Your task to perform on an android device: Open Youtube and go to "Your channel" Image 0: 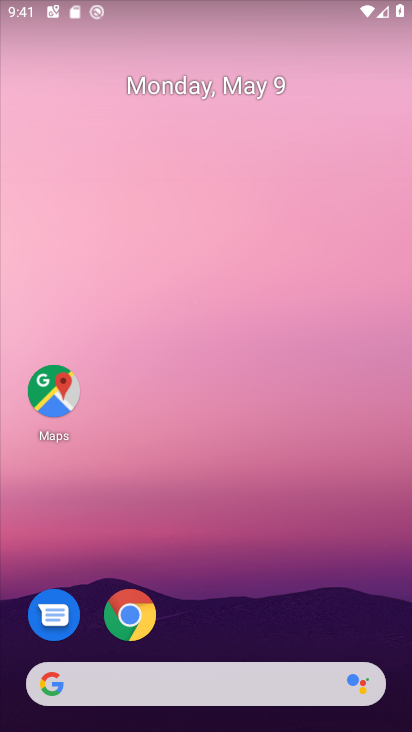
Step 0: drag from (271, 702) to (165, 256)
Your task to perform on an android device: Open Youtube and go to "Your channel" Image 1: 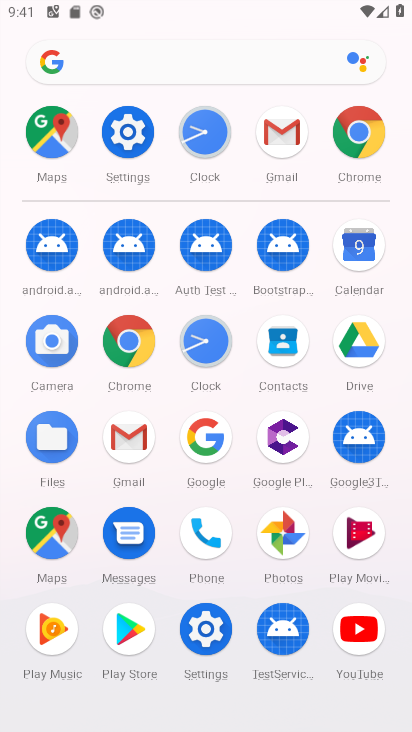
Step 1: click (364, 637)
Your task to perform on an android device: Open Youtube and go to "Your channel" Image 2: 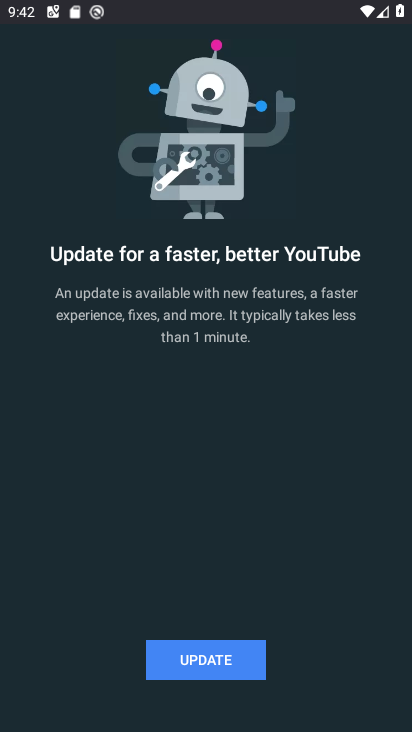
Step 2: press home button
Your task to perform on an android device: Open Youtube and go to "Your channel" Image 3: 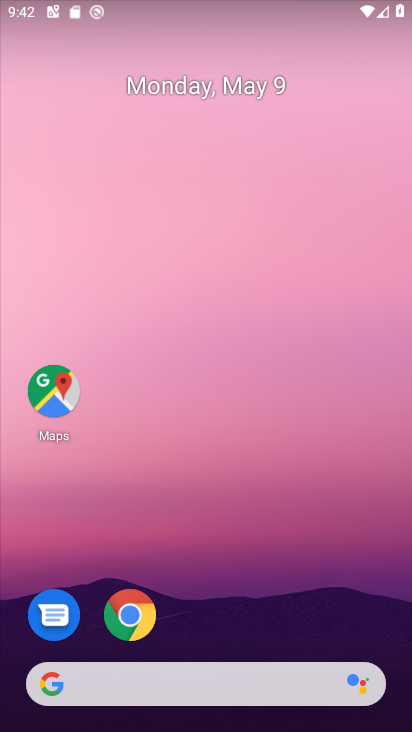
Step 3: drag from (261, 712) to (197, 238)
Your task to perform on an android device: Open Youtube and go to "Your channel" Image 4: 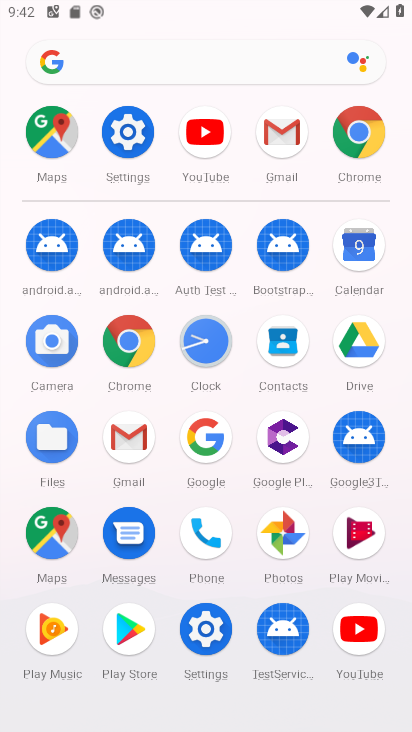
Step 4: click (365, 621)
Your task to perform on an android device: Open Youtube and go to "Your channel" Image 5: 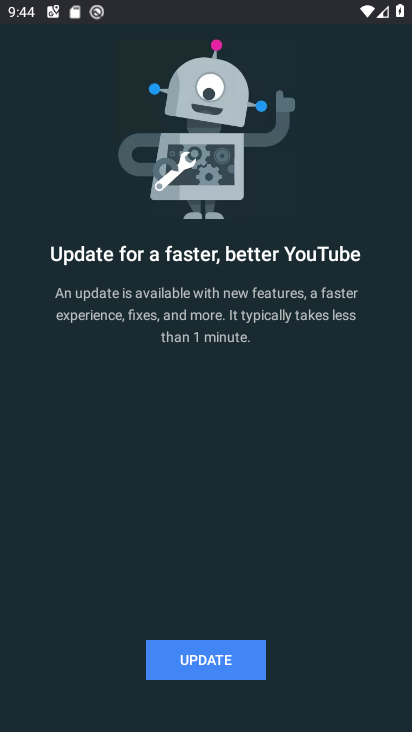
Step 5: click (182, 667)
Your task to perform on an android device: Open Youtube and go to "Your channel" Image 6: 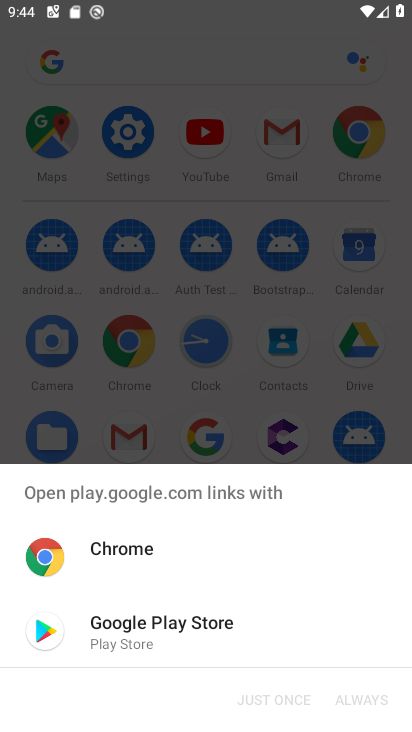
Step 6: click (173, 623)
Your task to perform on an android device: Open Youtube and go to "Your channel" Image 7: 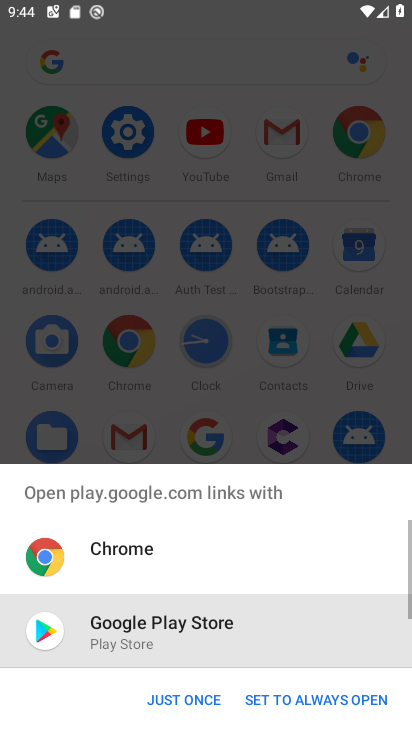
Step 7: click (192, 702)
Your task to perform on an android device: Open Youtube and go to "Your channel" Image 8: 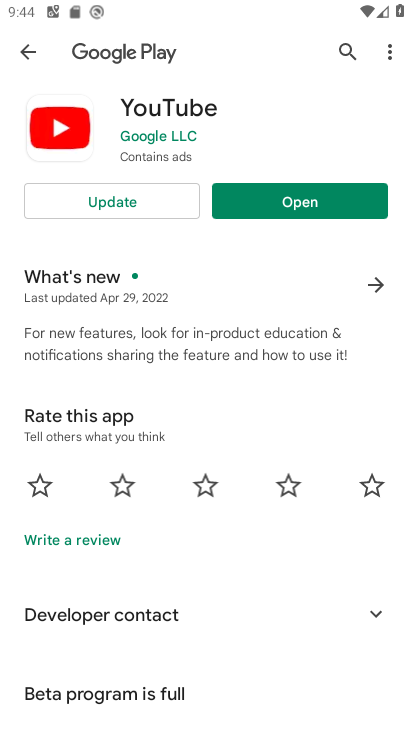
Step 8: click (112, 203)
Your task to perform on an android device: Open Youtube and go to "Your channel" Image 9: 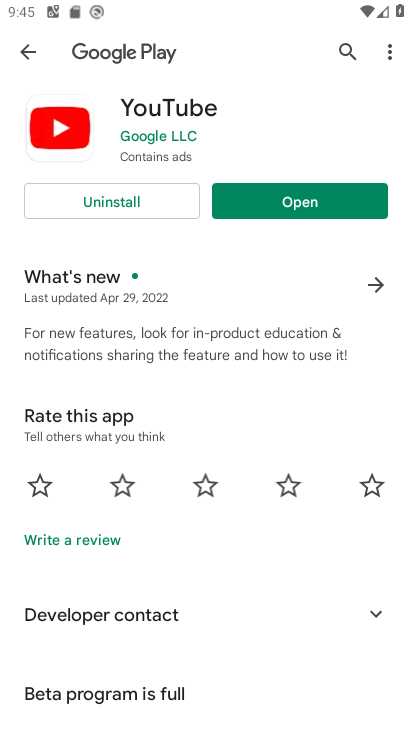
Step 9: click (267, 197)
Your task to perform on an android device: Open Youtube and go to "Your channel" Image 10: 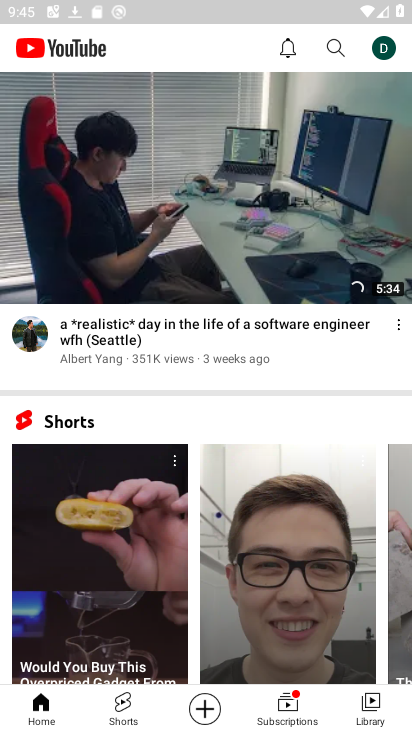
Step 10: click (378, 63)
Your task to perform on an android device: Open Youtube and go to "Your channel" Image 11: 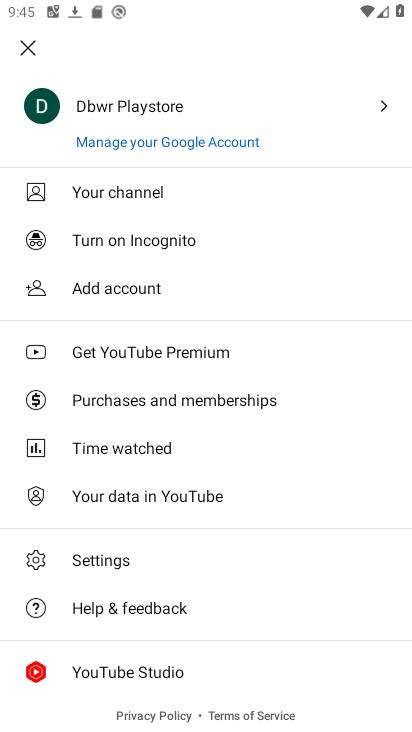
Step 11: click (125, 185)
Your task to perform on an android device: Open Youtube and go to "Your channel" Image 12: 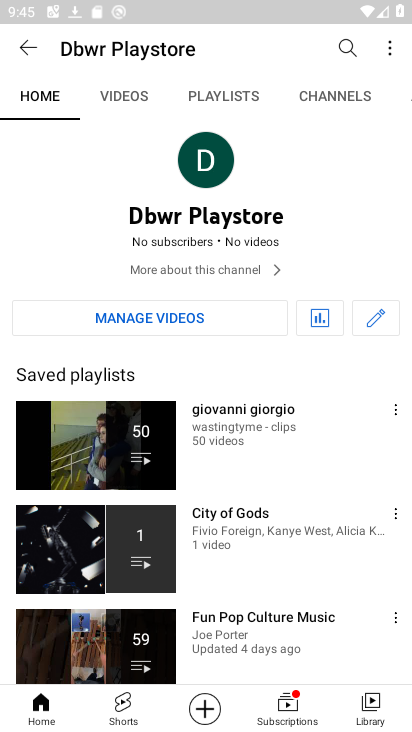
Step 12: task complete